Your task to perform on an android device: delete a single message in the gmail app Image 0: 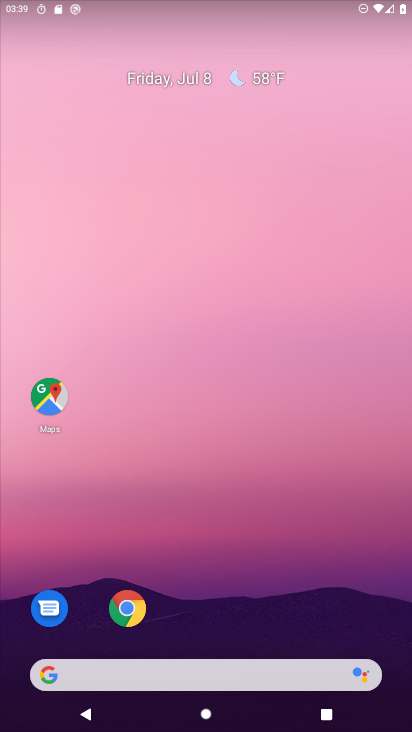
Step 0: drag from (233, 726) to (224, 213)
Your task to perform on an android device: delete a single message in the gmail app Image 1: 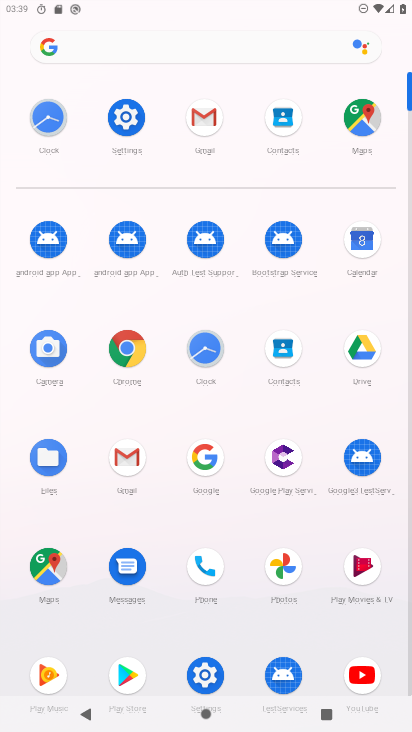
Step 1: click (126, 454)
Your task to perform on an android device: delete a single message in the gmail app Image 2: 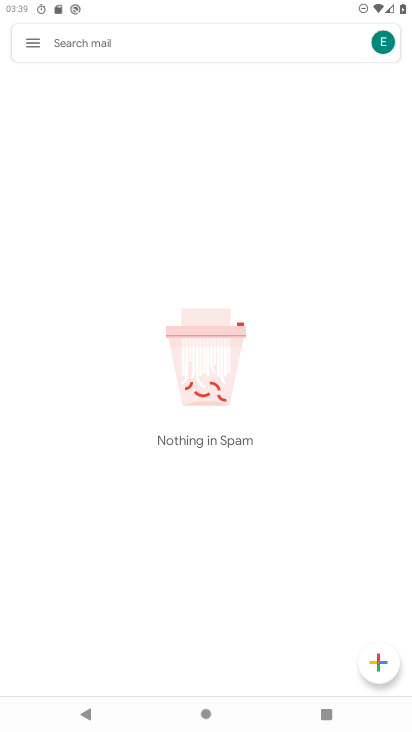
Step 2: click (33, 49)
Your task to perform on an android device: delete a single message in the gmail app Image 3: 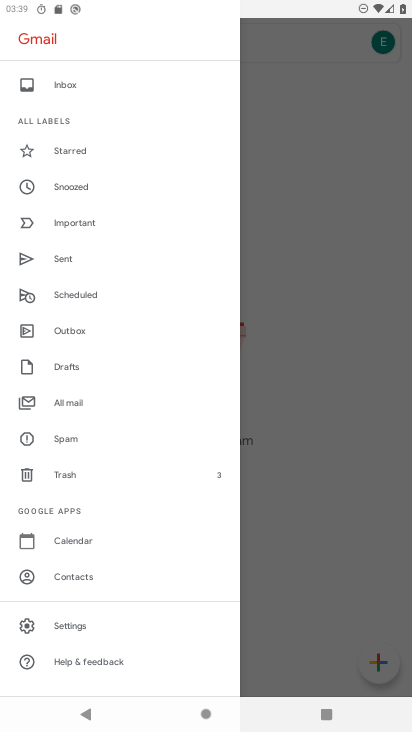
Step 3: click (71, 85)
Your task to perform on an android device: delete a single message in the gmail app Image 4: 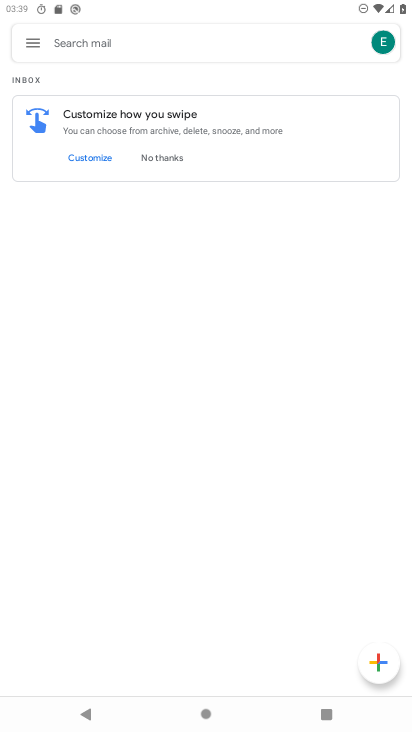
Step 4: task complete